Your task to perform on an android device: check android version Image 0: 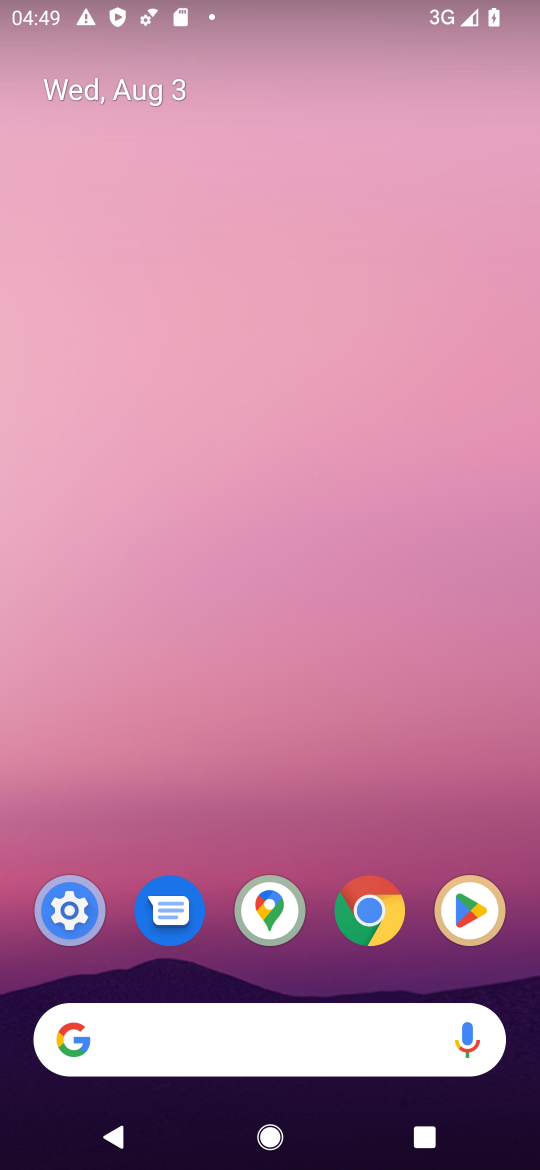
Step 0: press home button
Your task to perform on an android device: check android version Image 1: 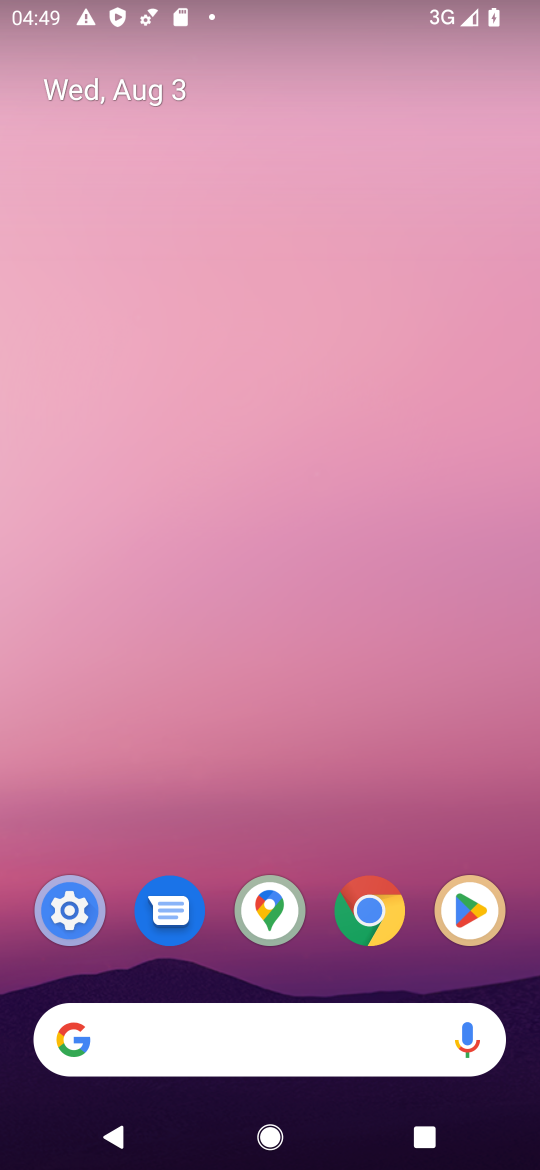
Step 1: drag from (311, 850) to (336, 135)
Your task to perform on an android device: check android version Image 2: 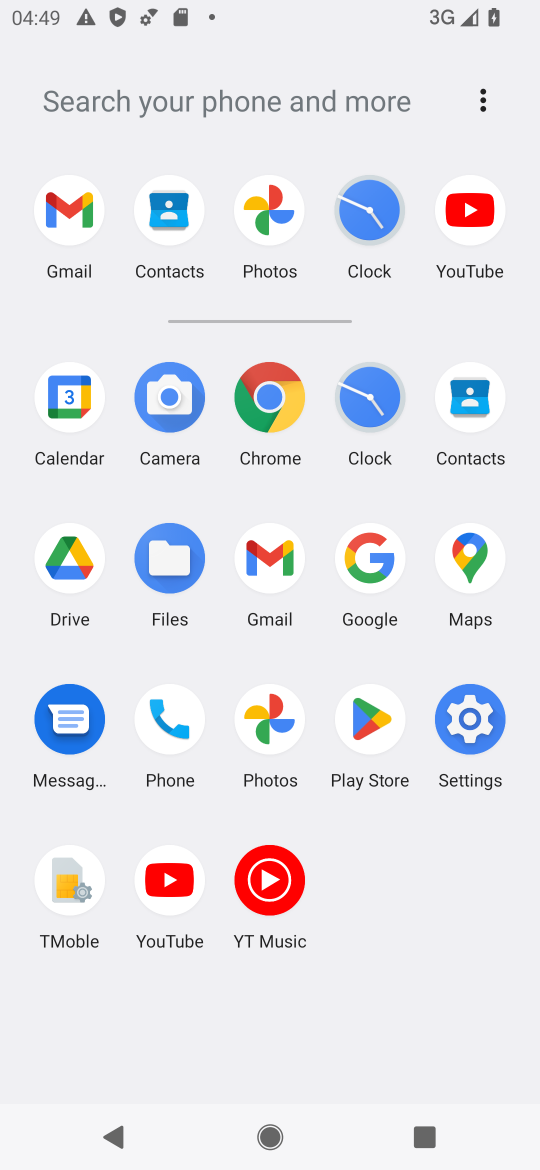
Step 2: click (467, 719)
Your task to perform on an android device: check android version Image 3: 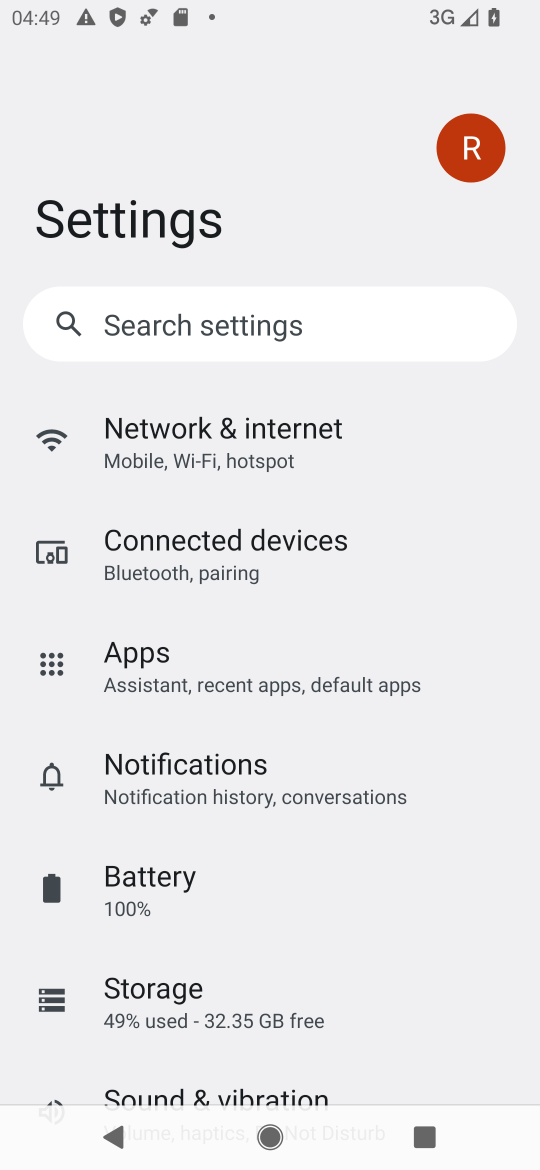
Step 3: drag from (274, 1013) to (295, 257)
Your task to perform on an android device: check android version Image 4: 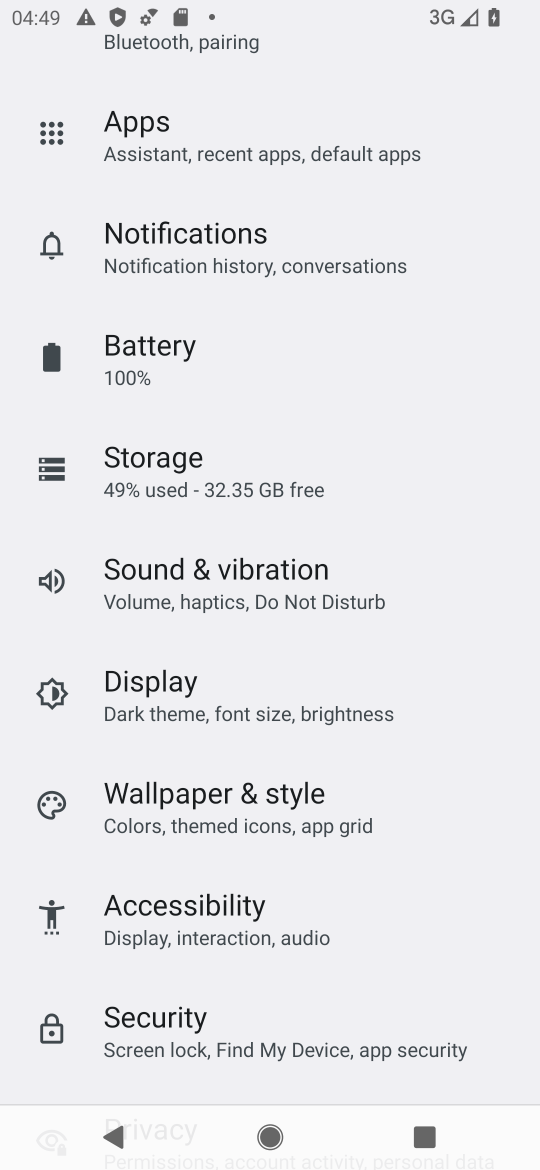
Step 4: drag from (287, 1001) to (295, 409)
Your task to perform on an android device: check android version Image 5: 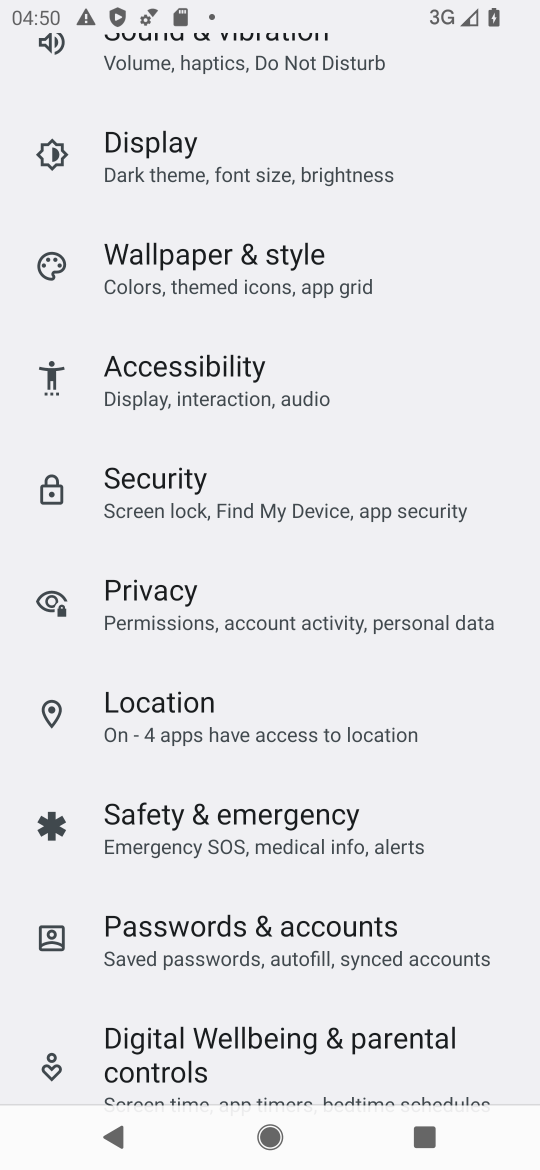
Step 5: drag from (278, 1031) to (268, 470)
Your task to perform on an android device: check android version Image 6: 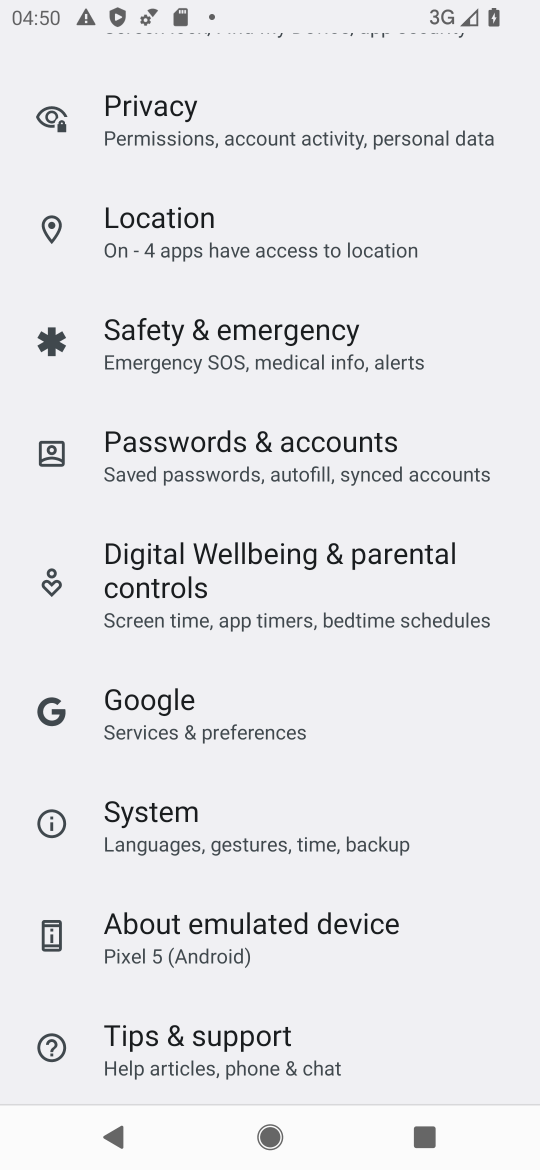
Step 6: drag from (292, 1005) to (320, 656)
Your task to perform on an android device: check android version Image 7: 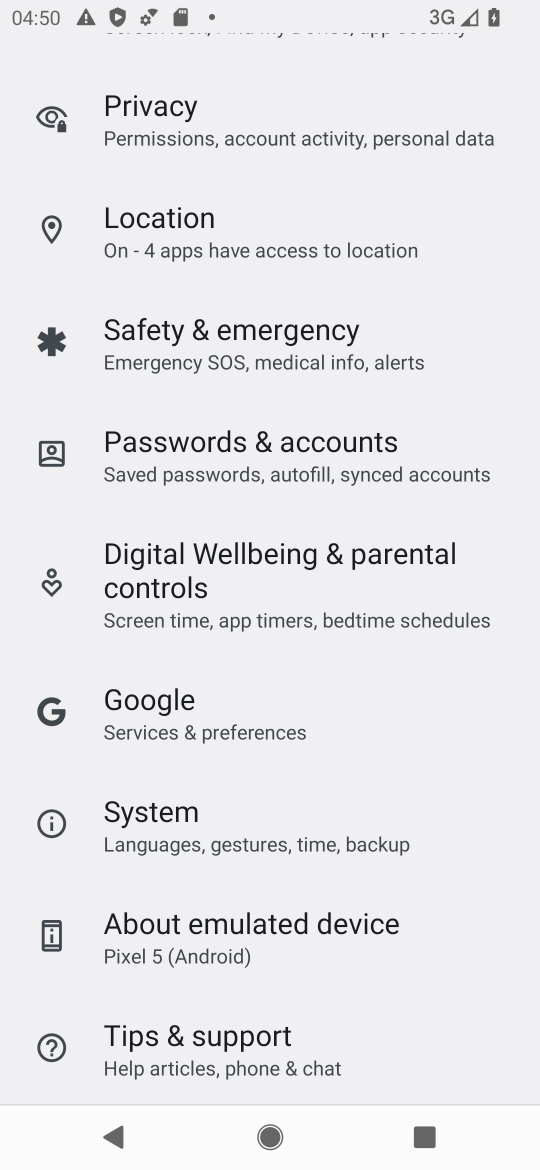
Step 7: drag from (279, 986) to (312, 590)
Your task to perform on an android device: check android version Image 8: 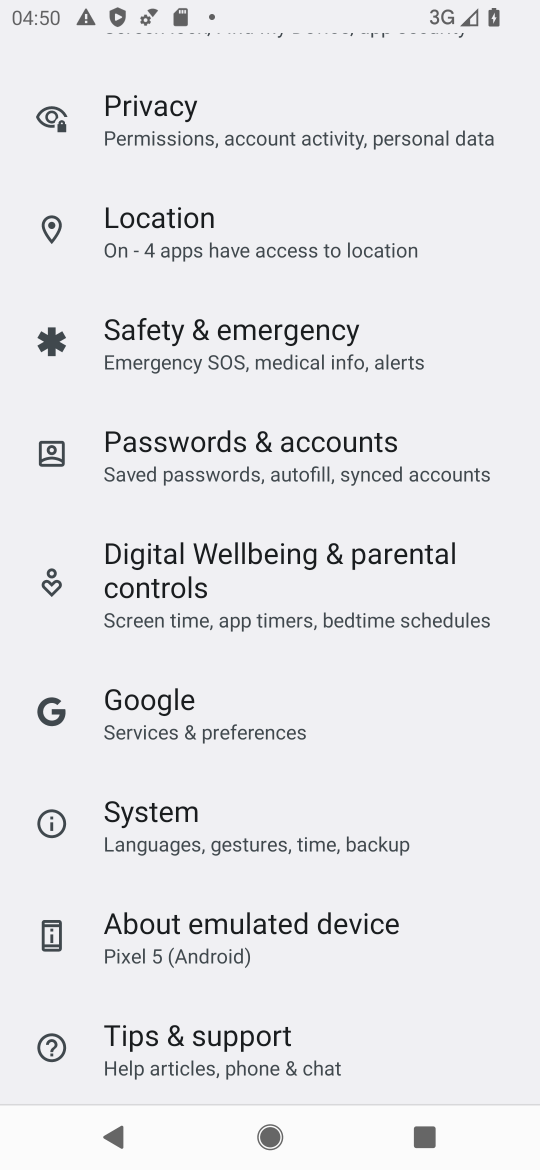
Step 8: click (273, 949)
Your task to perform on an android device: check android version Image 9: 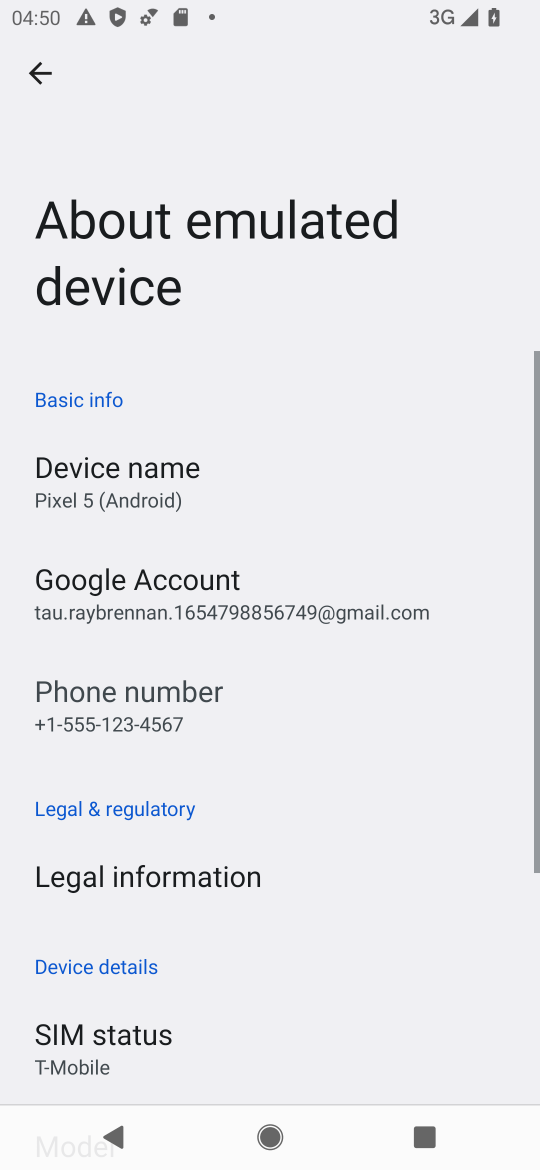
Step 9: drag from (254, 1023) to (263, 509)
Your task to perform on an android device: check android version Image 10: 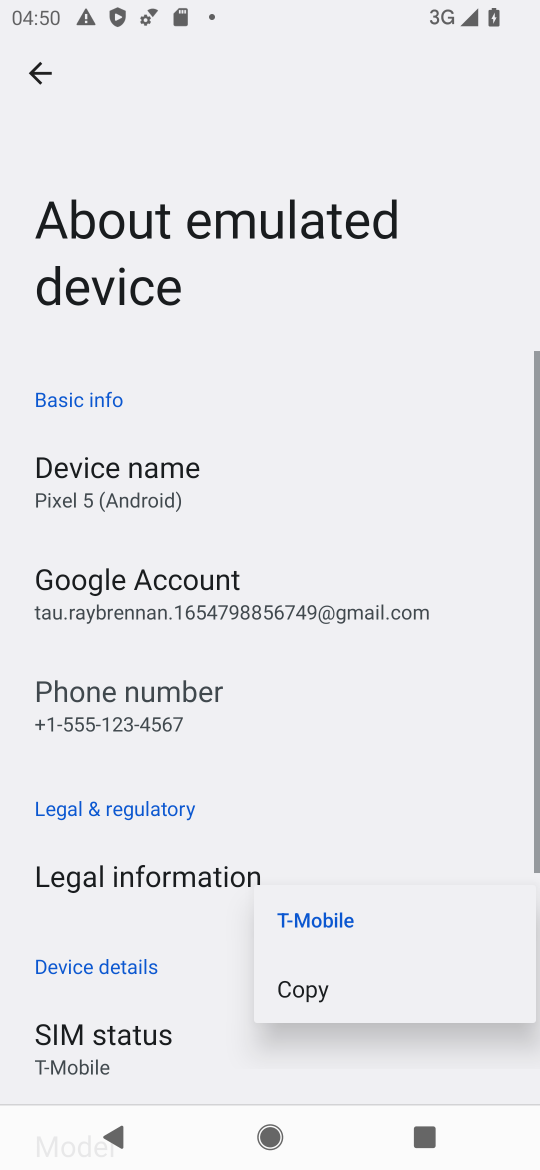
Step 10: drag from (170, 952) to (150, 440)
Your task to perform on an android device: check android version Image 11: 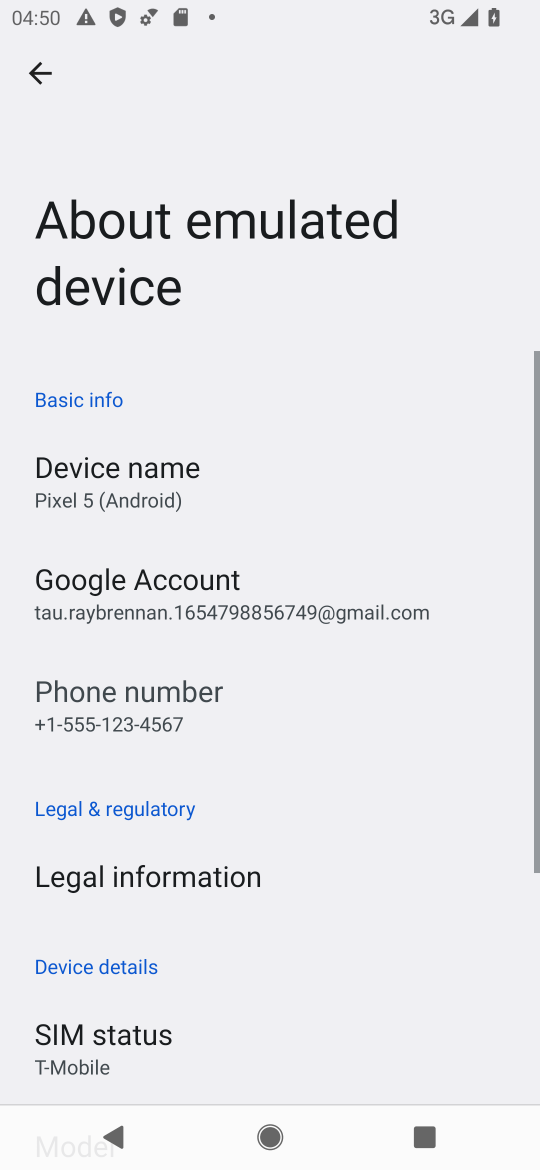
Step 11: click (57, 65)
Your task to perform on an android device: check android version Image 12: 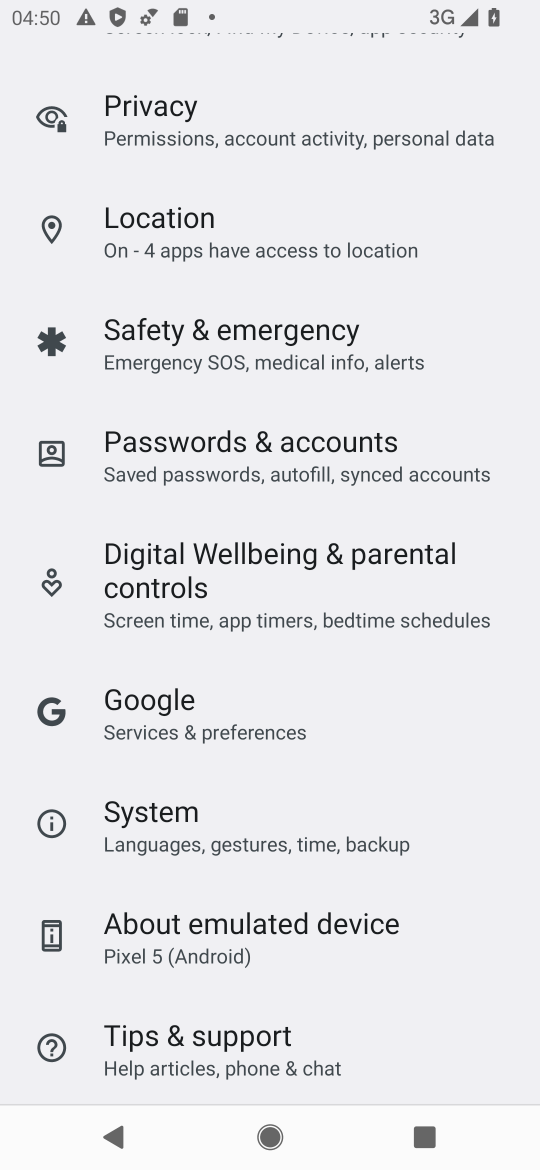
Step 12: click (302, 1050)
Your task to perform on an android device: check android version Image 13: 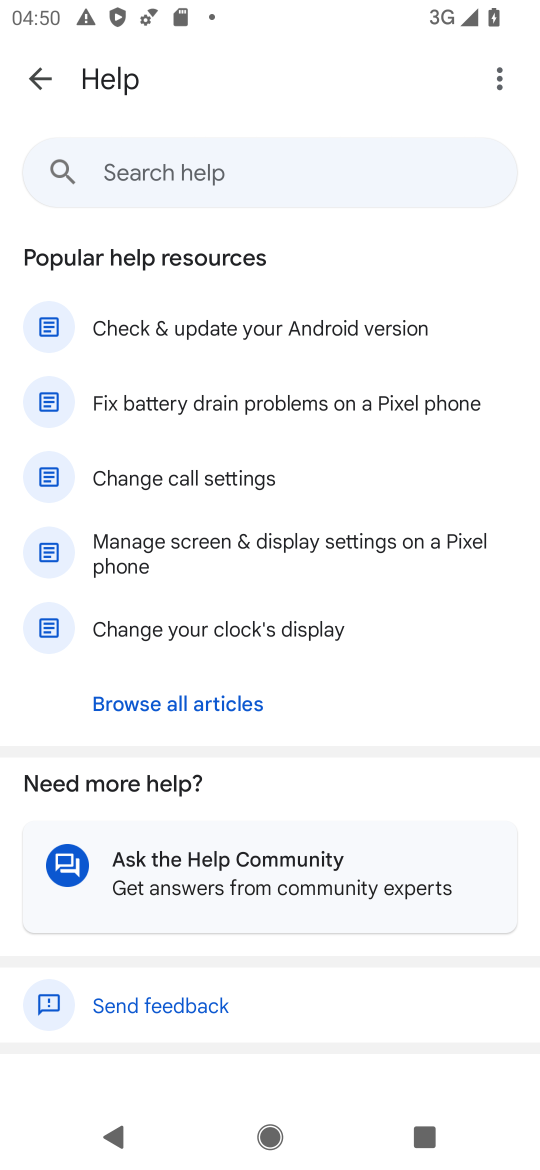
Step 13: click (25, 90)
Your task to perform on an android device: check android version Image 14: 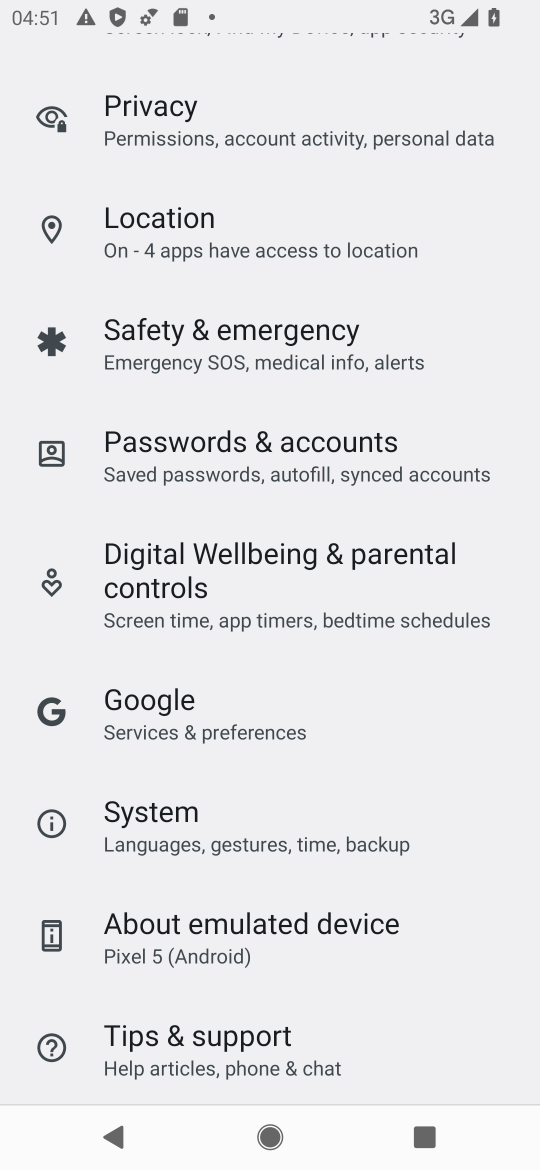
Step 14: click (246, 943)
Your task to perform on an android device: check android version Image 15: 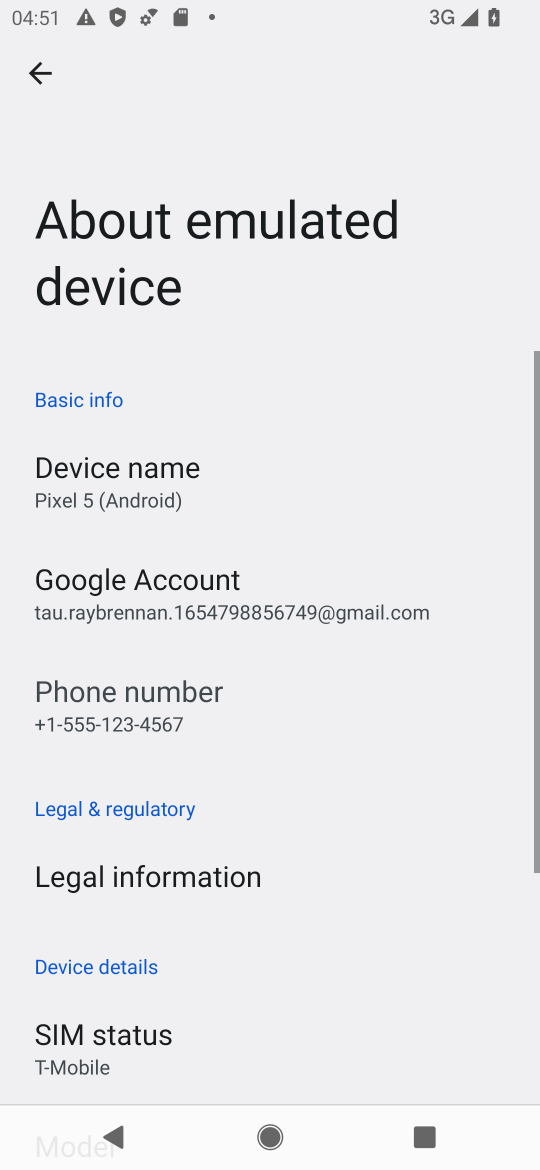
Step 15: click (186, 485)
Your task to perform on an android device: check android version Image 16: 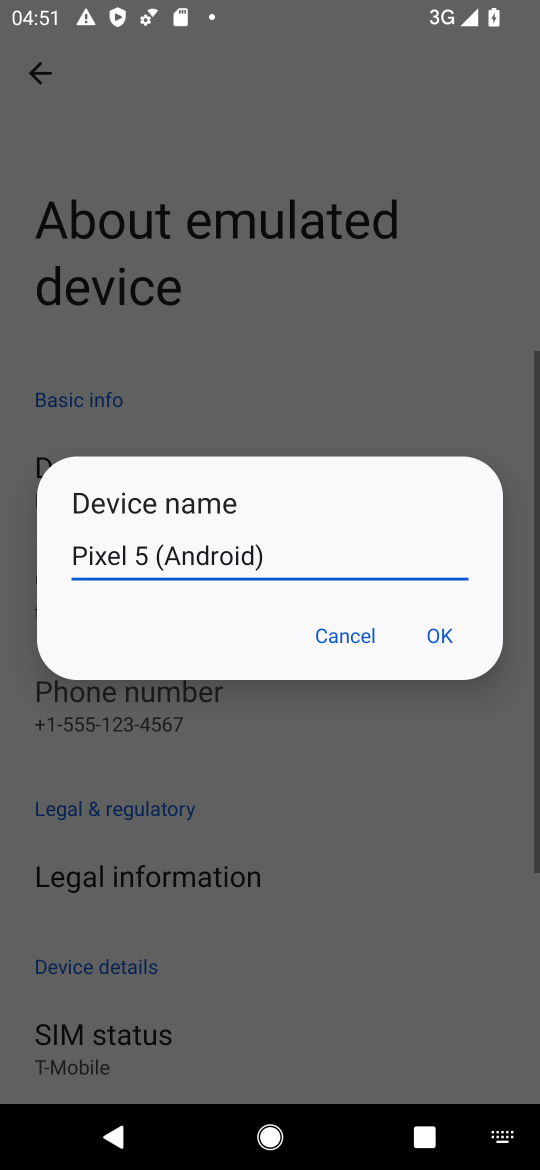
Step 16: click (331, 640)
Your task to perform on an android device: check android version Image 17: 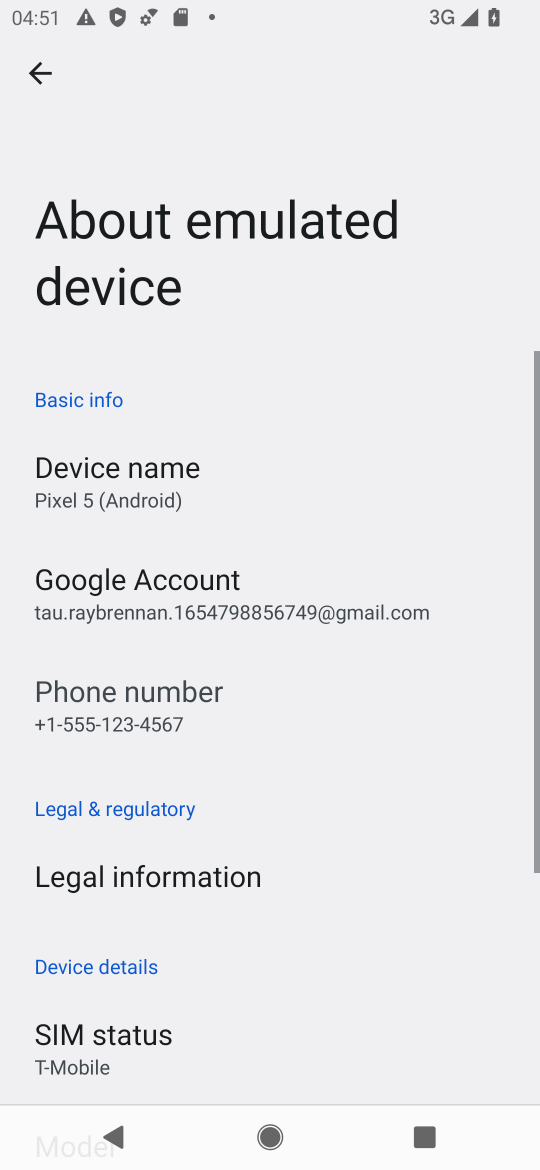
Step 17: drag from (203, 975) to (206, 703)
Your task to perform on an android device: check android version Image 18: 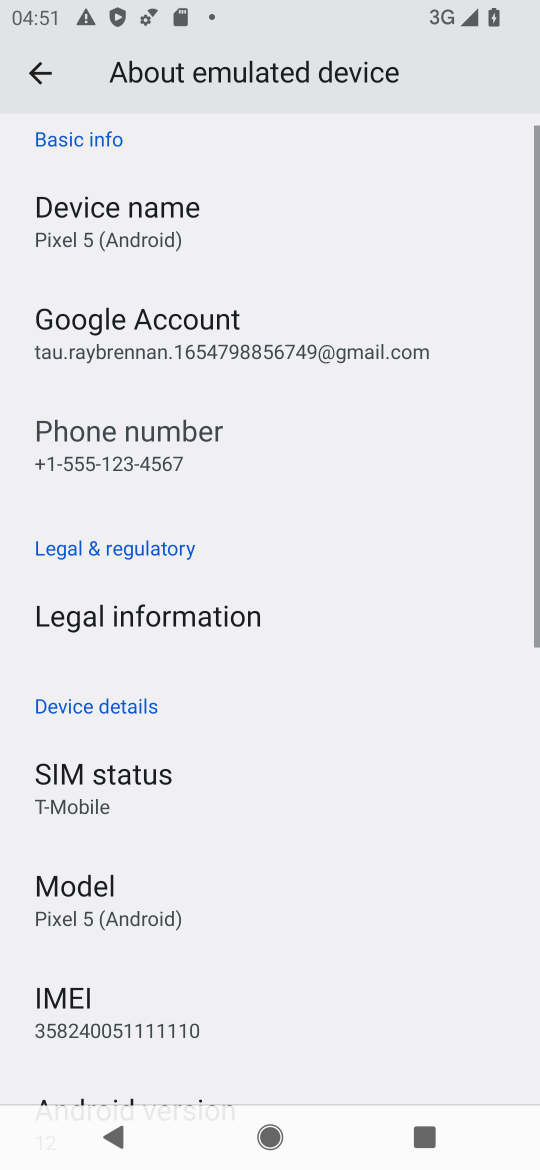
Step 18: drag from (196, 993) to (193, 175)
Your task to perform on an android device: check android version Image 19: 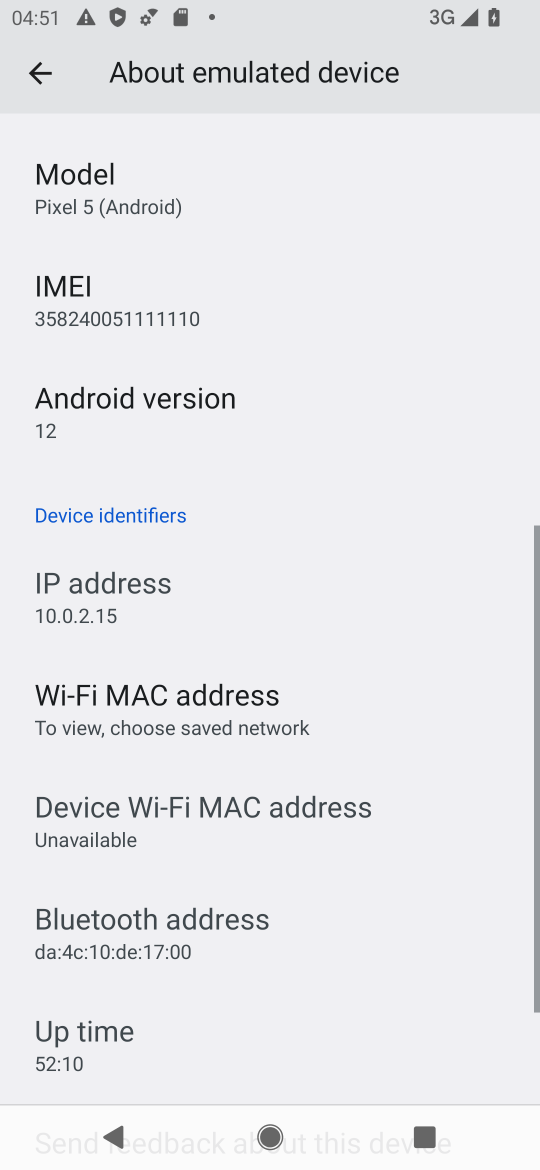
Step 19: click (198, 982)
Your task to perform on an android device: check android version Image 20: 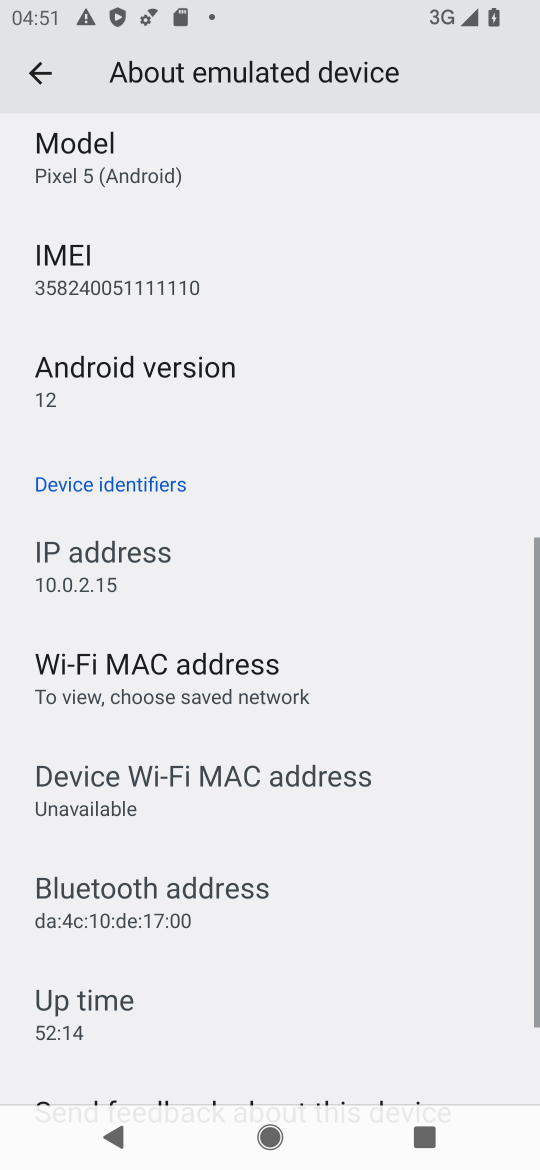
Step 20: click (99, 400)
Your task to perform on an android device: check android version Image 21: 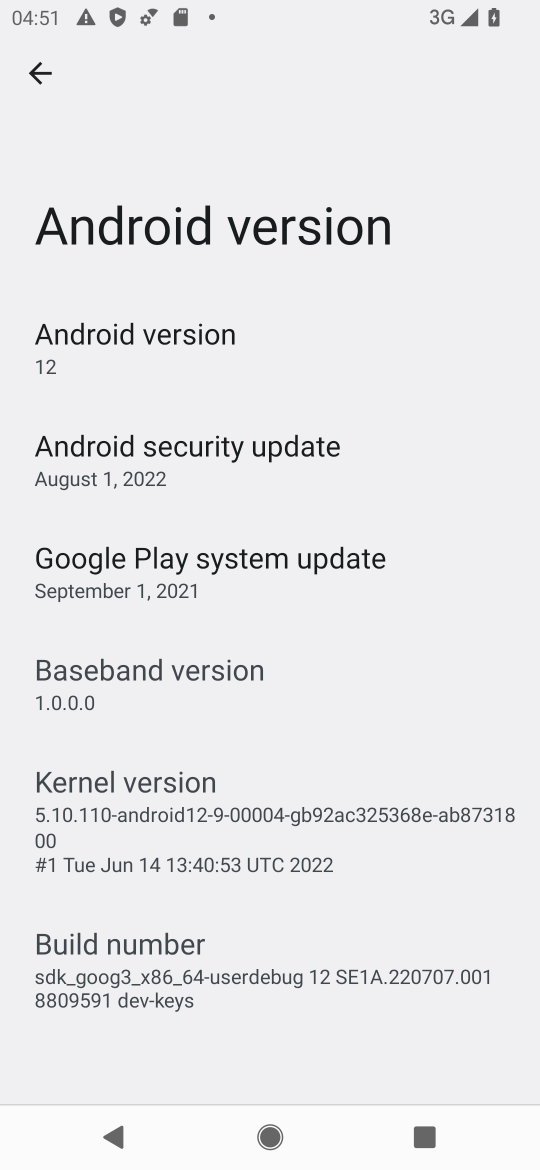
Step 21: task complete